Your task to perform on an android device: Open Google Maps Image 0: 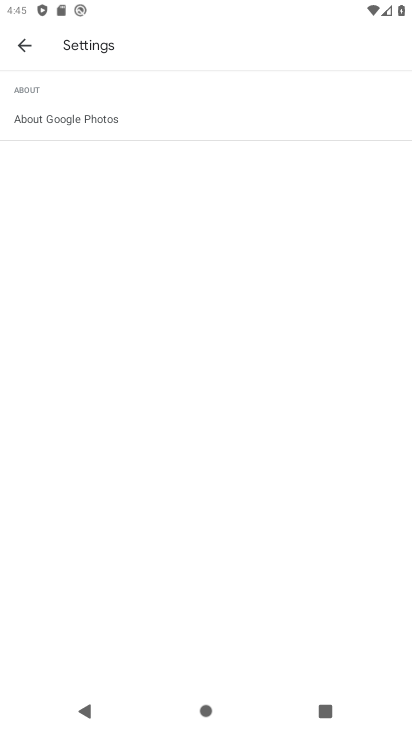
Step 0: press back button
Your task to perform on an android device: Open Google Maps Image 1: 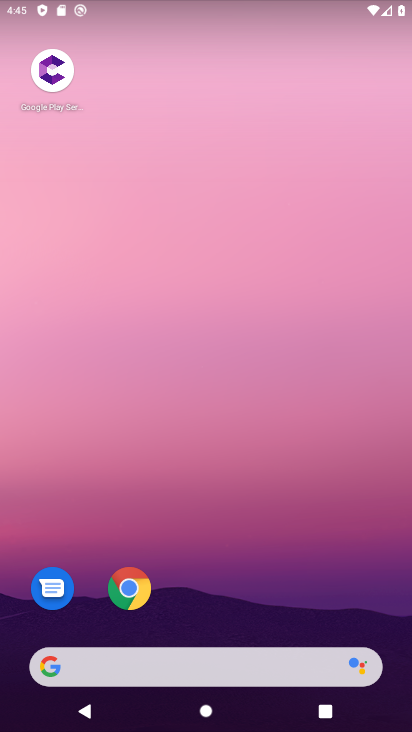
Step 1: drag from (158, 602) to (242, 231)
Your task to perform on an android device: Open Google Maps Image 2: 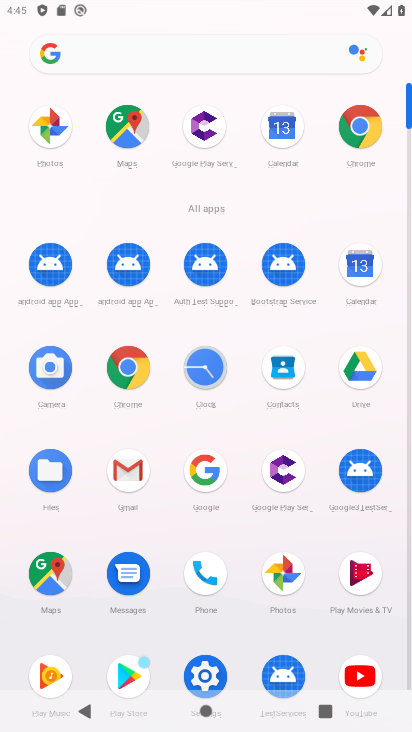
Step 2: click (55, 580)
Your task to perform on an android device: Open Google Maps Image 3: 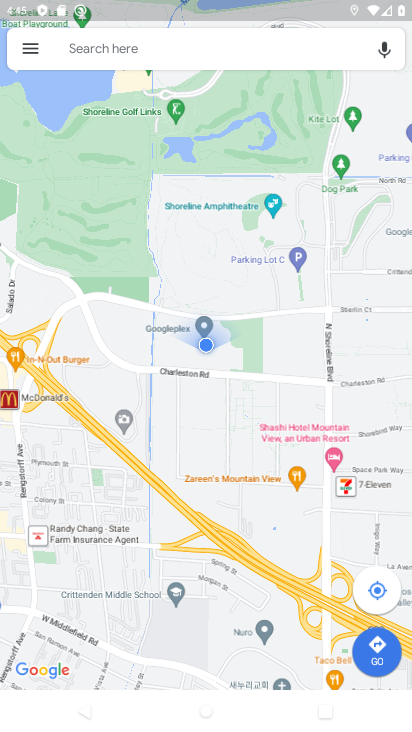
Step 3: task complete